Your task to perform on an android device: uninstall "Gmail" Image 0: 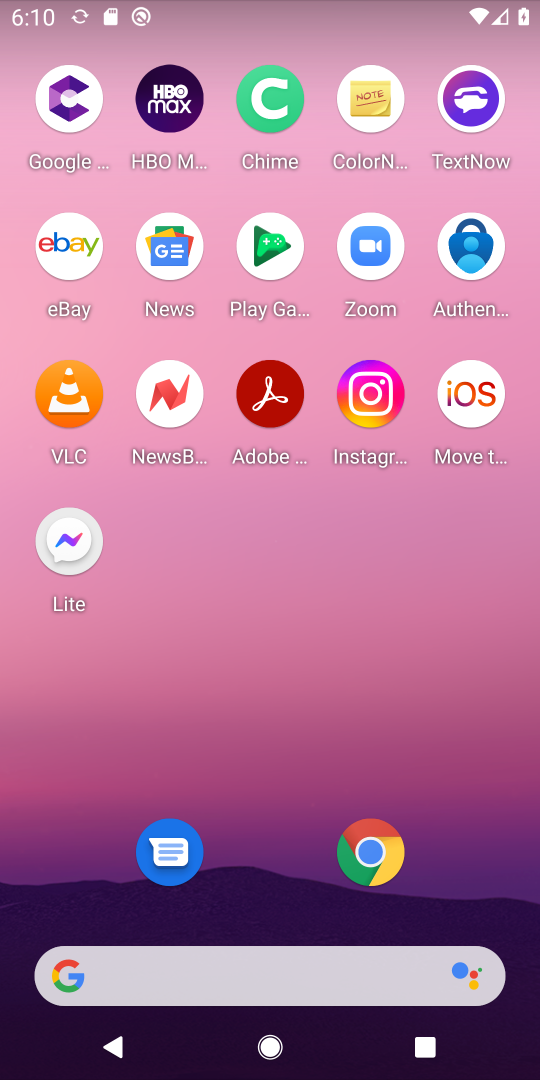
Step 0: press home button
Your task to perform on an android device: uninstall "Gmail" Image 1: 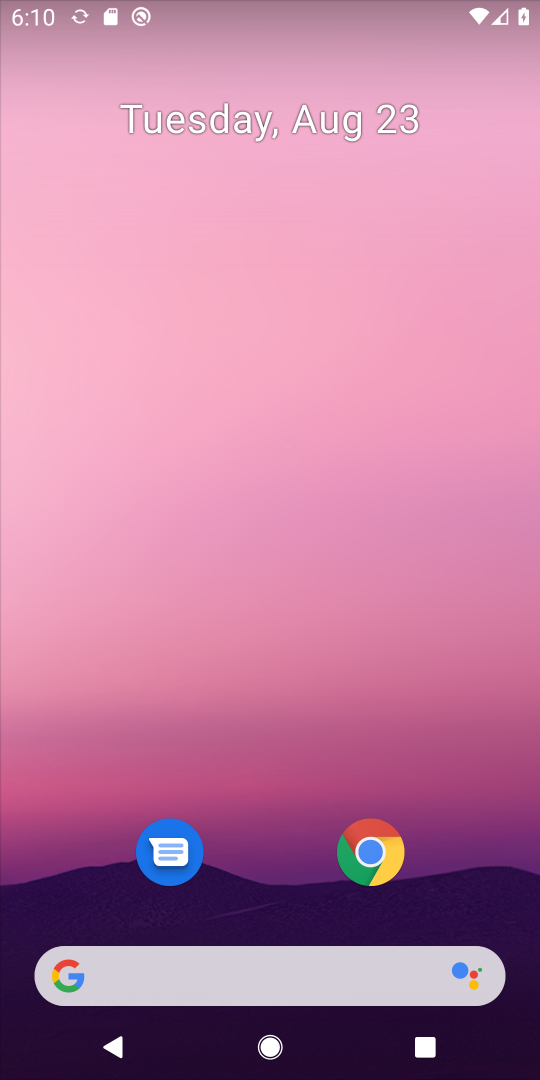
Step 1: drag from (235, 980) to (272, 48)
Your task to perform on an android device: uninstall "Gmail" Image 2: 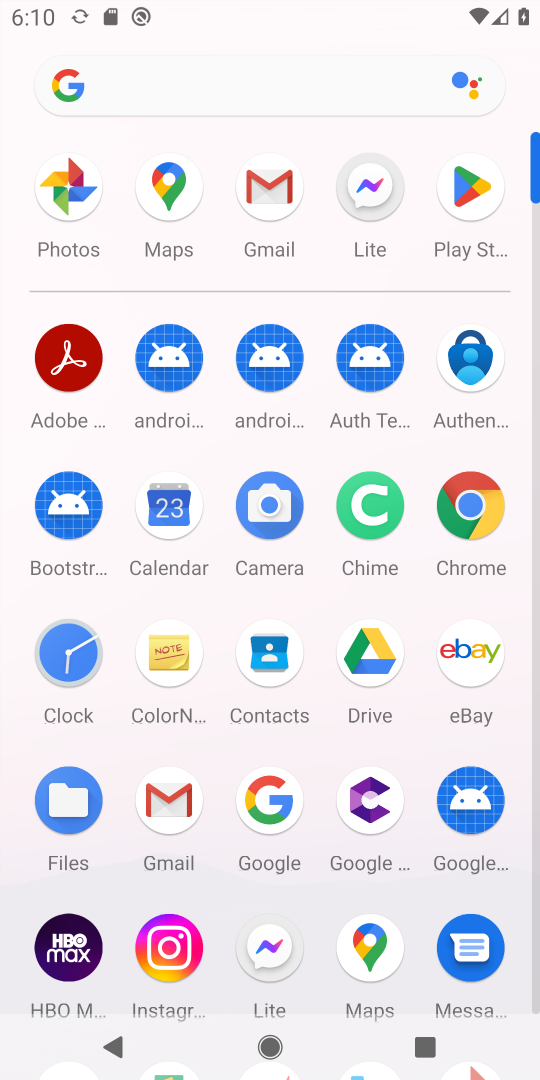
Step 2: click (474, 188)
Your task to perform on an android device: uninstall "Gmail" Image 3: 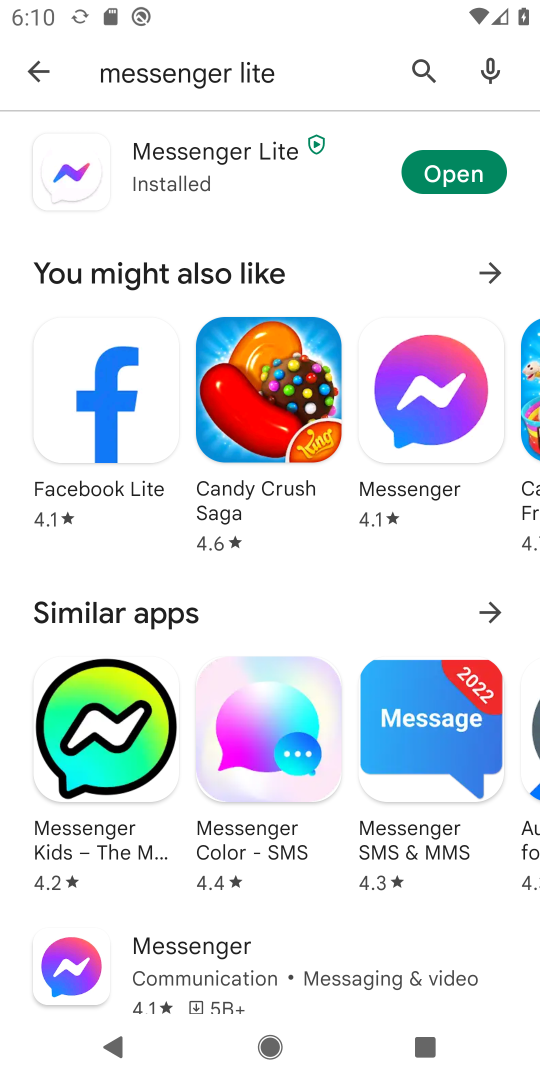
Step 3: press back button
Your task to perform on an android device: uninstall "Gmail" Image 4: 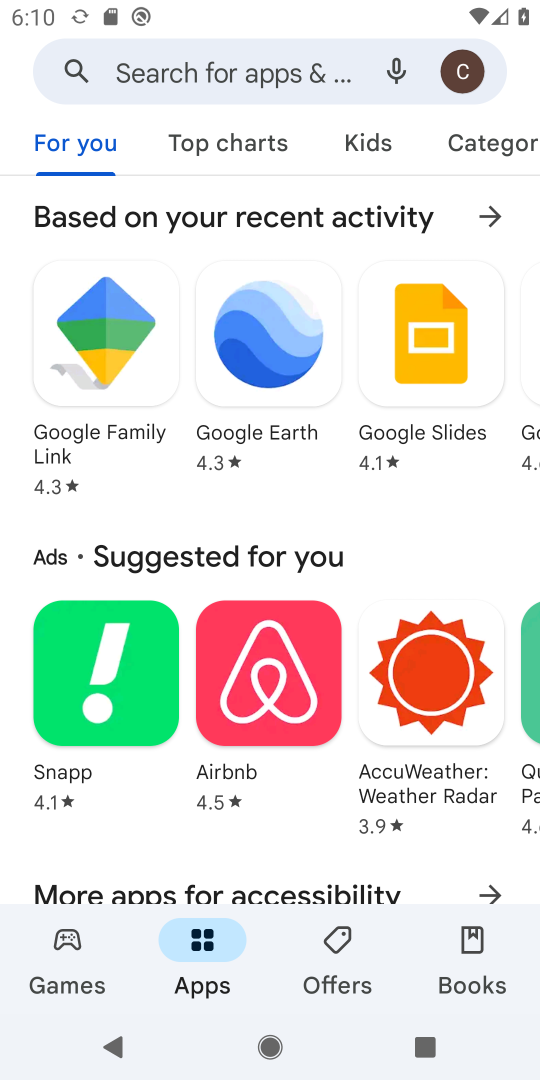
Step 4: click (301, 72)
Your task to perform on an android device: uninstall "Gmail" Image 5: 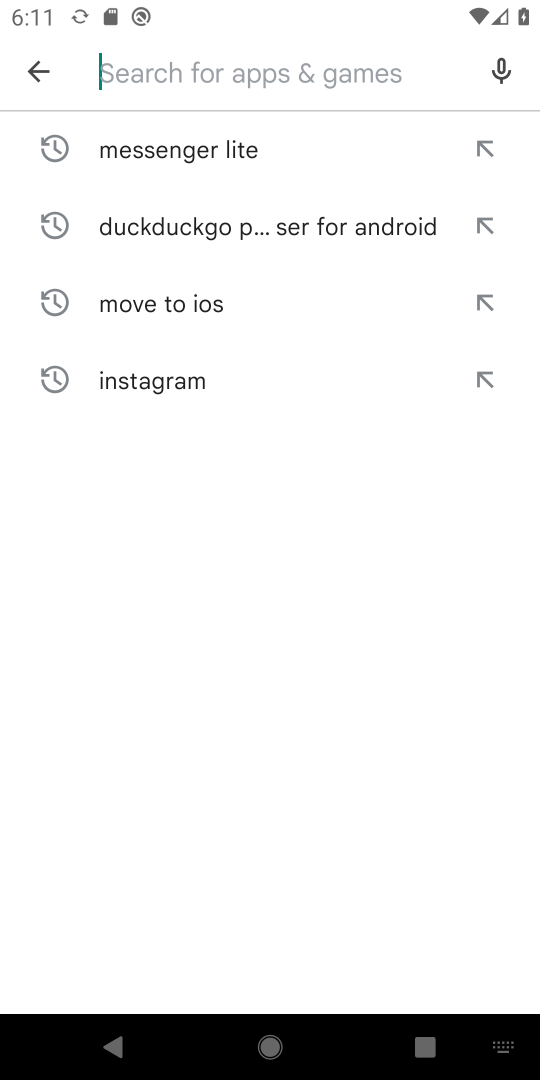
Step 5: type "Gmail"
Your task to perform on an android device: uninstall "Gmail" Image 6: 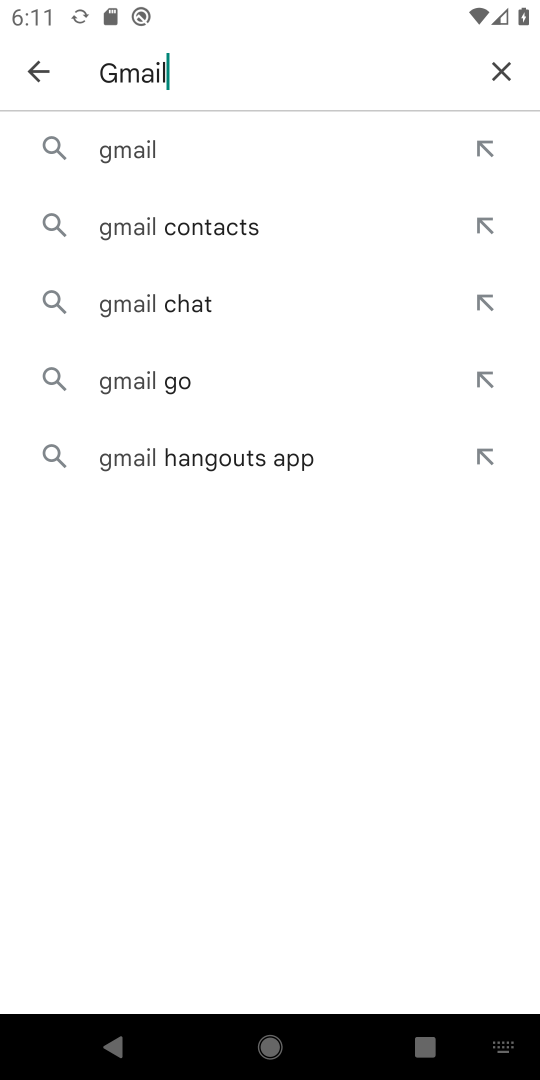
Step 6: click (120, 155)
Your task to perform on an android device: uninstall "Gmail" Image 7: 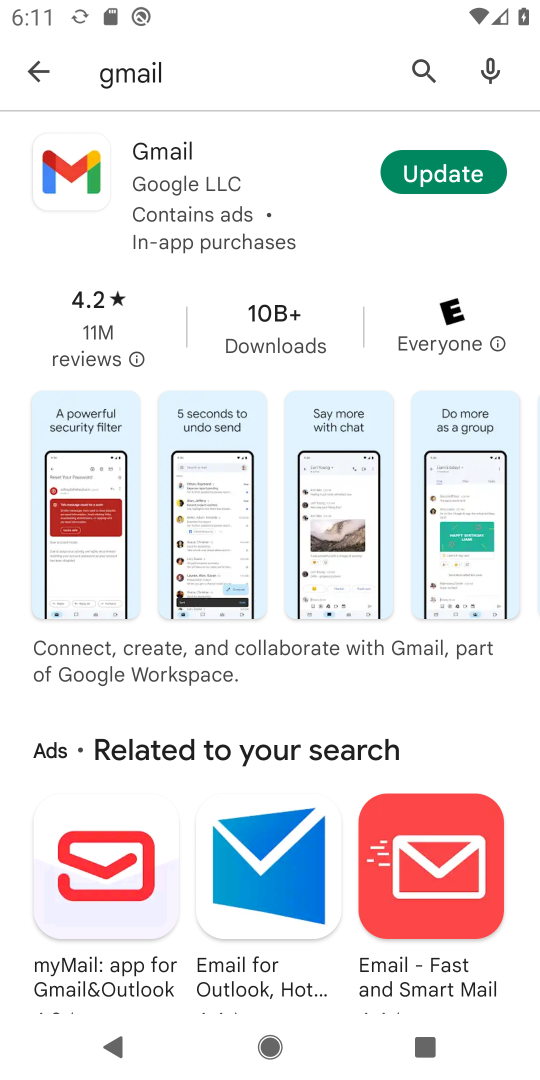
Step 7: click (425, 172)
Your task to perform on an android device: uninstall "Gmail" Image 8: 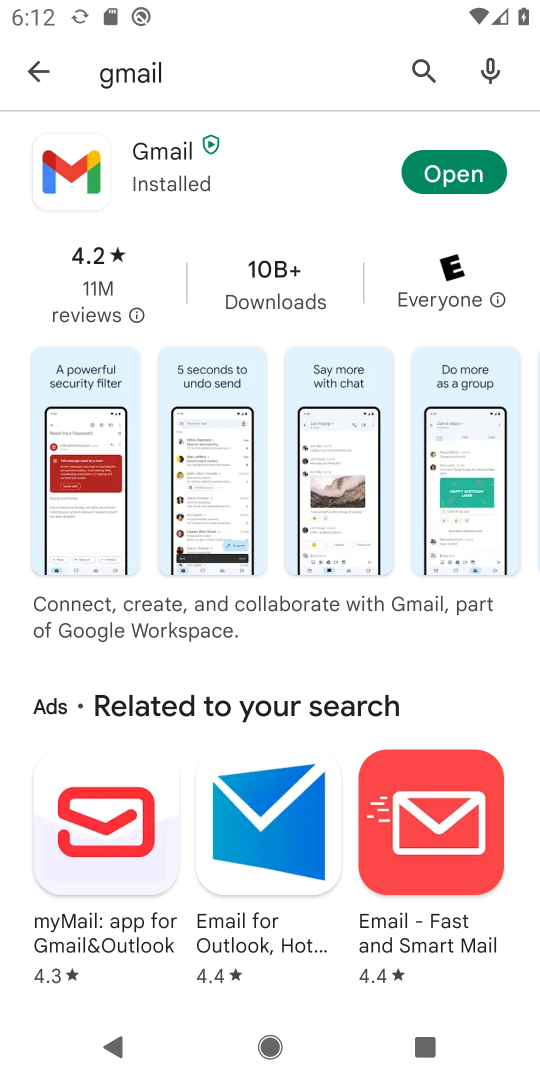
Step 8: click (170, 158)
Your task to perform on an android device: uninstall "Gmail" Image 9: 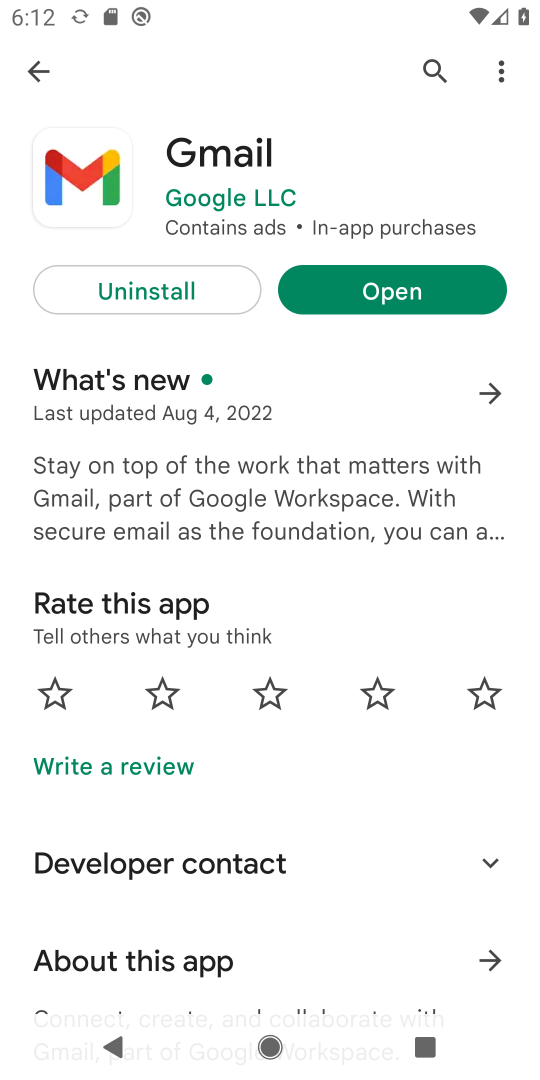
Step 9: click (164, 289)
Your task to perform on an android device: uninstall "Gmail" Image 10: 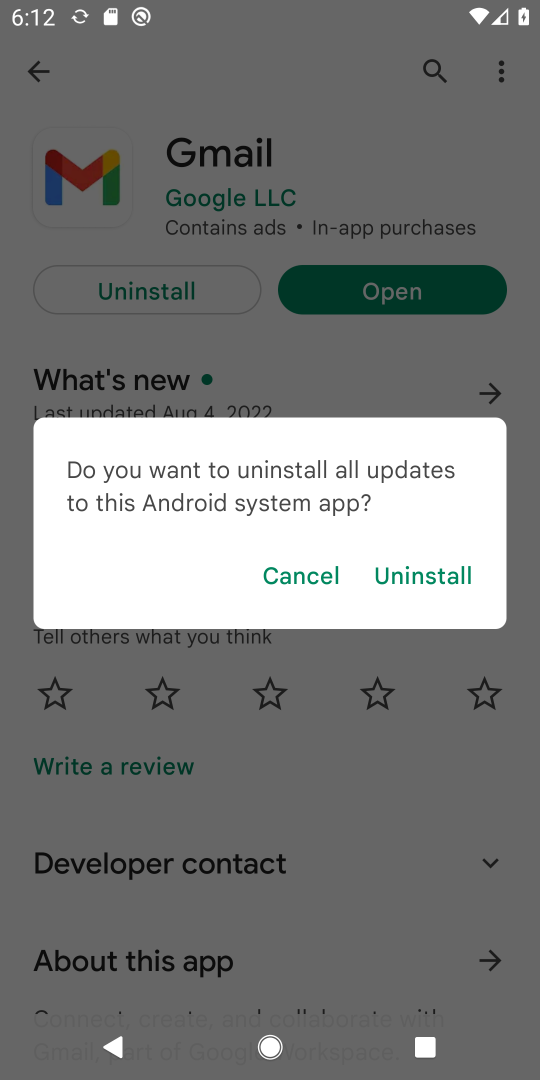
Step 10: click (443, 577)
Your task to perform on an android device: uninstall "Gmail" Image 11: 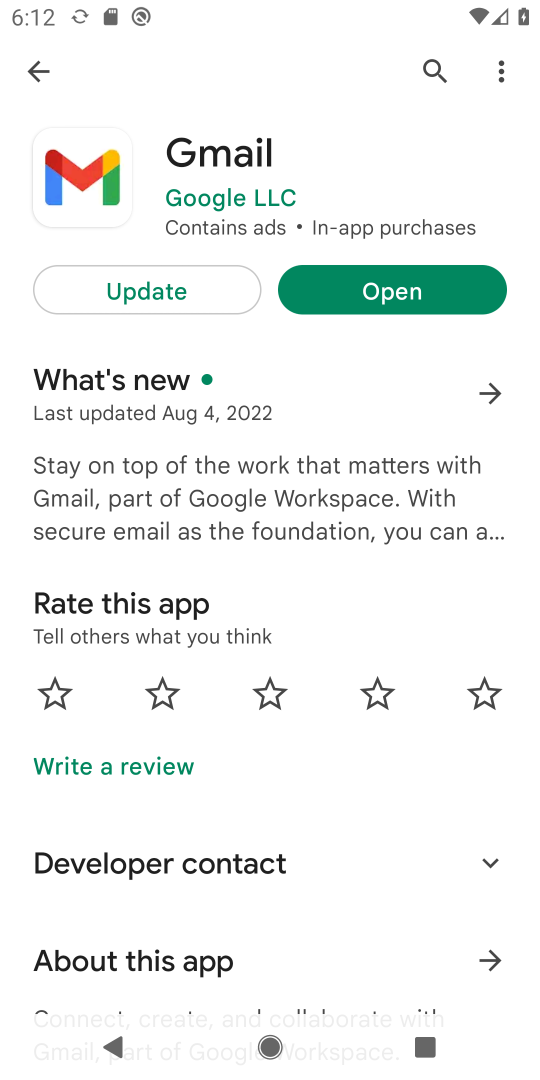
Step 11: task complete